Your task to perform on an android device: turn smart compose on in the gmail app Image 0: 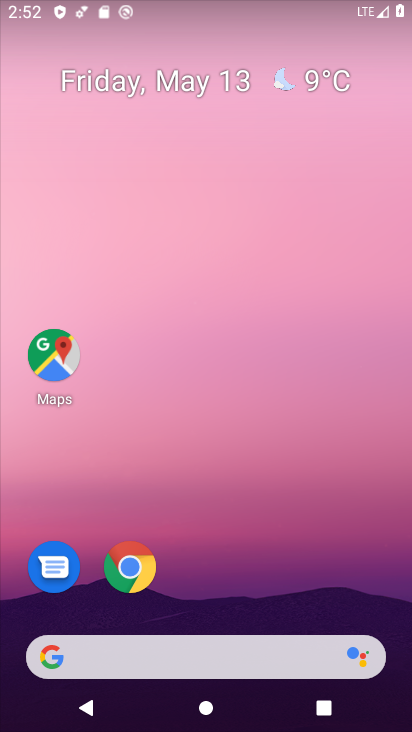
Step 0: drag from (293, 611) to (346, 9)
Your task to perform on an android device: turn smart compose on in the gmail app Image 1: 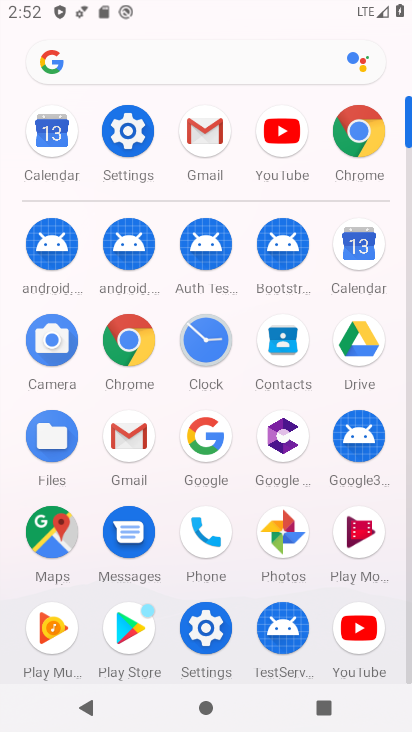
Step 1: click (201, 147)
Your task to perform on an android device: turn smart compose on in the gmail app Image 2: 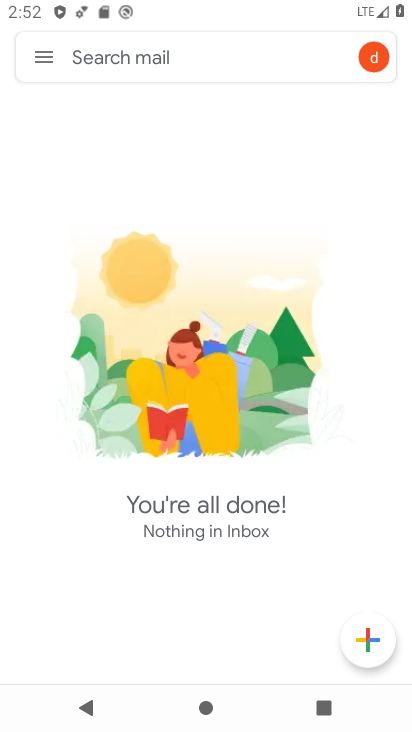
Step 2: click (41, 54)
Your task to perform on an android device: turn smart compose on in the gmail app Image 3: 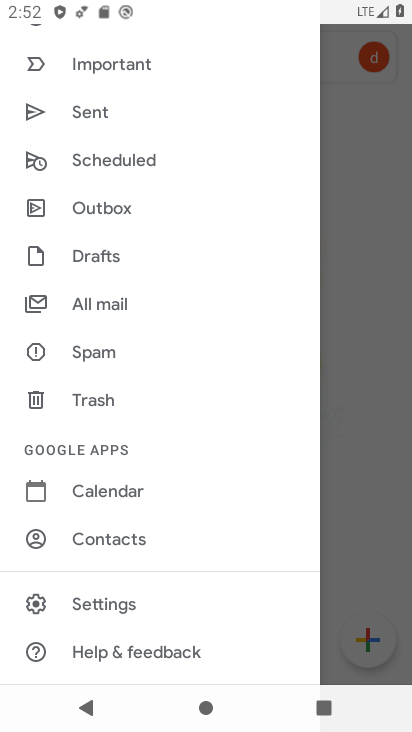
Step 3: click (114, 600)
Your task to perform on an android device: turn smart compose on in the gmail app Image 4: 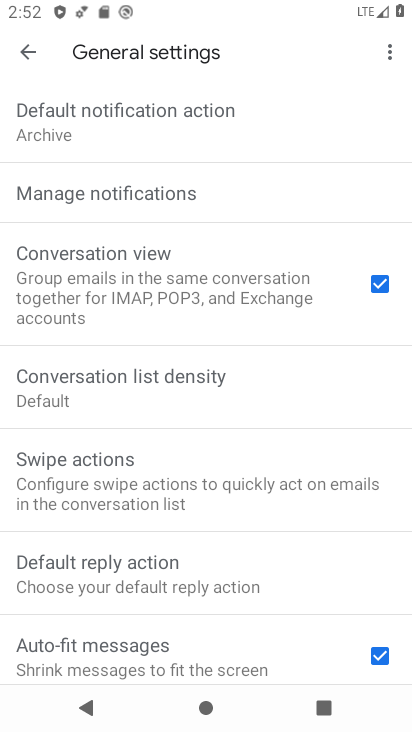
Step 4: click (27, 55)
Your task to perform on an android device: turn smart compose on in the gmail app Image 5: 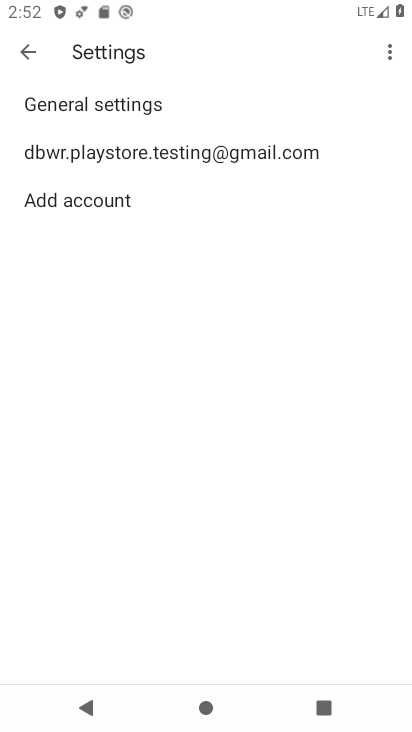
Step 5: click (60, 160)
Your task to perform on an android device: turn smart compose on in the gmail app Image 6: 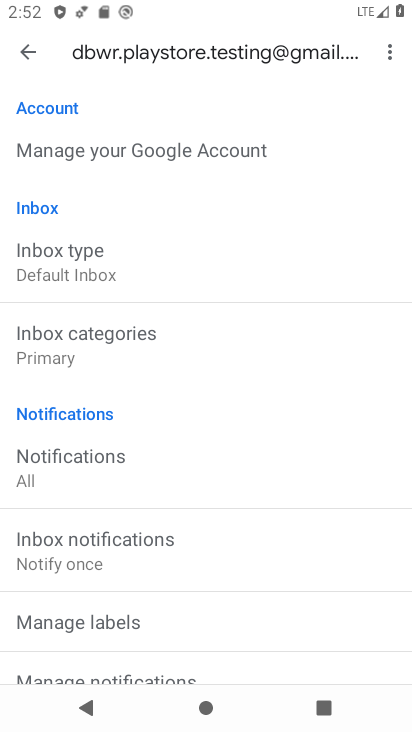
Step 6: task complete